Your task to perform on an android device: Go to Reddit.com Image 0: 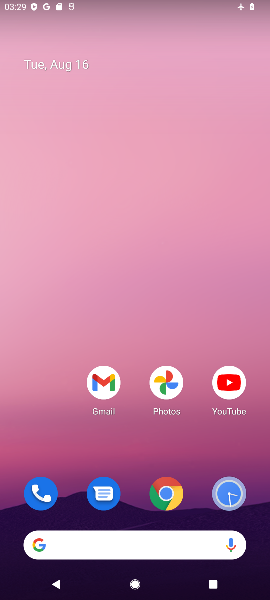
Step 0: press home button
Your task to perform on an android device: Go to Reddit.com Image 1: 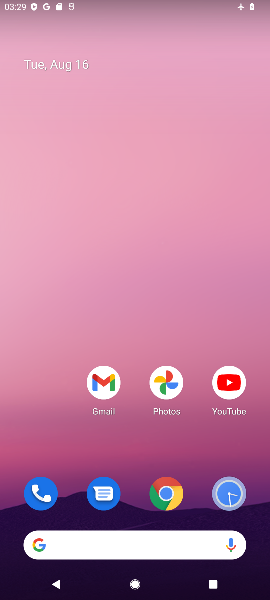
Step 1: drag from (58, 470) to (90, 78)
Your task to perform on an android device: Go to Reddit.com Image 2: 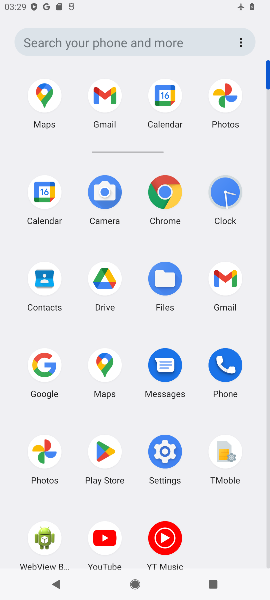
Step 2: click (168, 194)
Your task to perform on an android device: Go to Reddit.com Image 3: 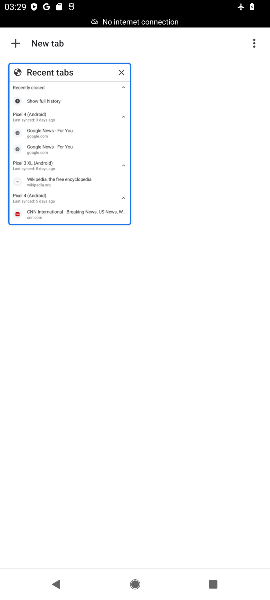
Step 3: press back button
Your task to perform on an android device: Go to Reddit.com Image 4: 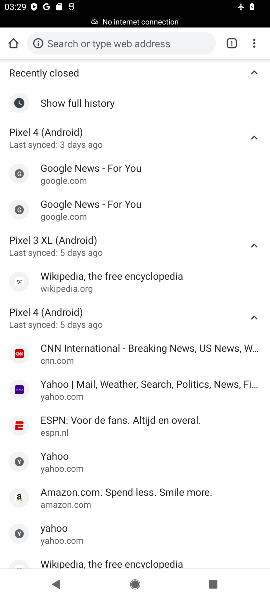
Step 4: click (163, 45)
Your task to perform on an android device: Go to Reddit.com Image 5: 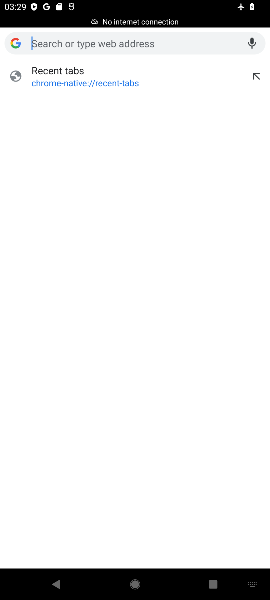
Step 5: type "reddit.com"
Your task to perform on an android device: Go to Reddit.com Image 6: 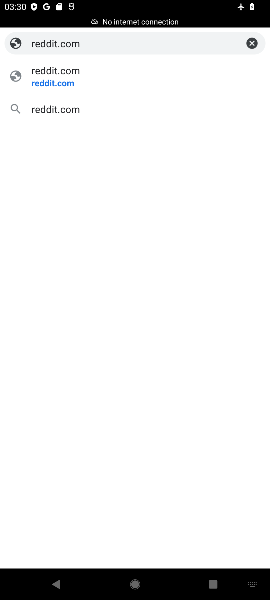
Step 6: click (81, 77)
Your task to perform on an android device: Go to Reddit.com Image 7: 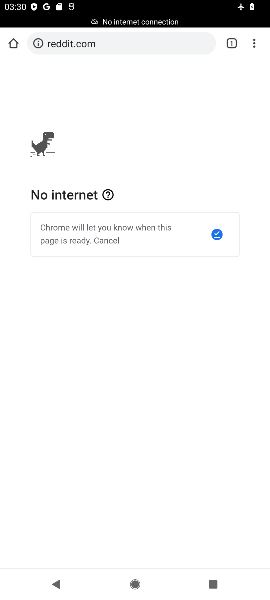
Step 7: task complete